Your task to perform on an android device: turn on improve location accuracy Image 0: 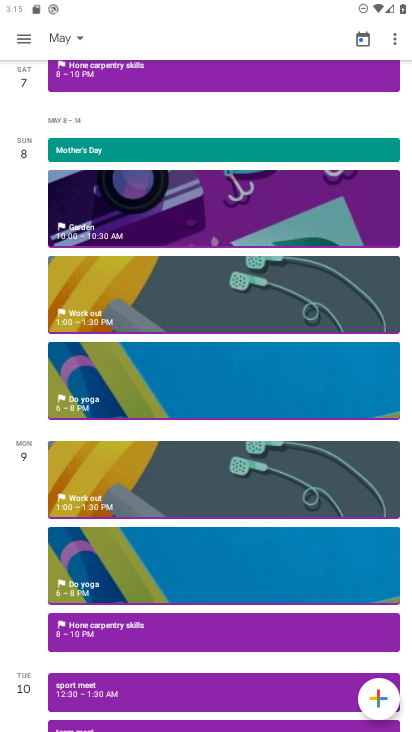
Step 0: press home button
Your task to perform on an android device: turn on improve location accuracy Image 1: 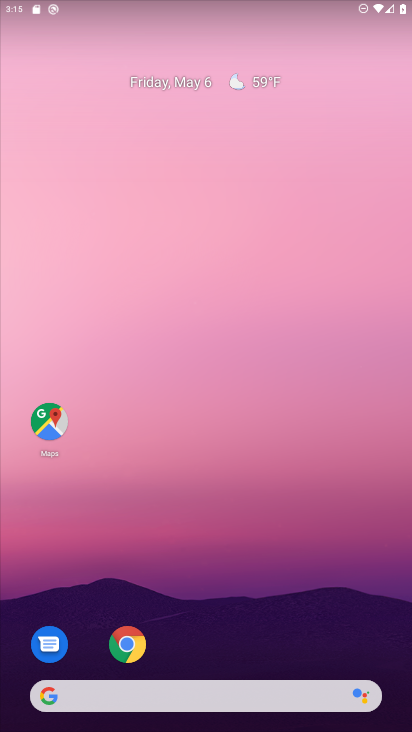
Step 1: drag from (195, 713) to (172, 210)
Your task to perform on an android device: turn on improve location accuracy Image 2: 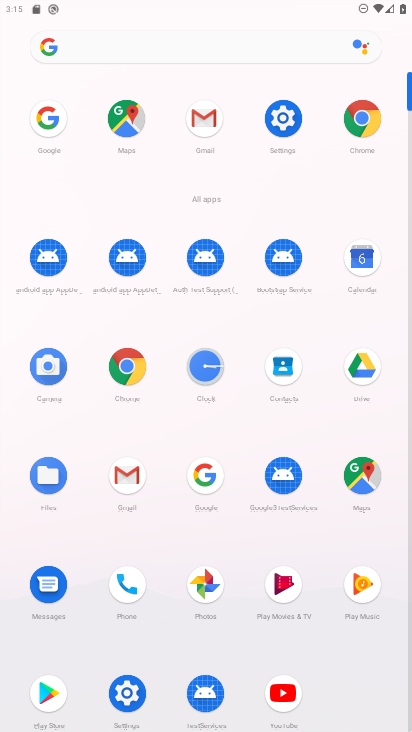
Step 2: click (285, 120)
Your task to perform on an android device: turn on improve location accuracy Image 3: 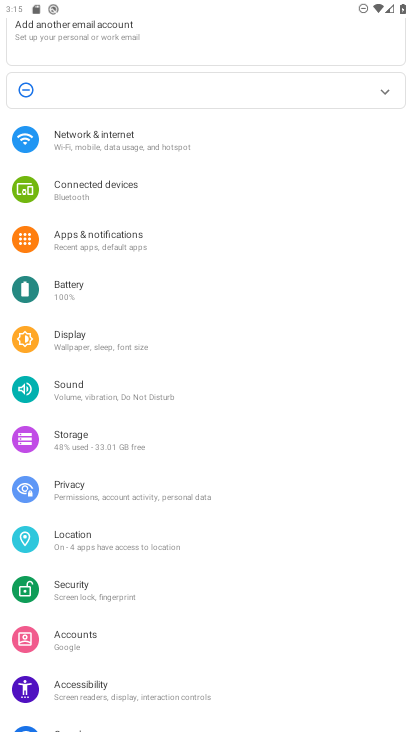
Step 3: click (92, 534)
Your task to perform on an android device: turn on improve location accuracy Image 4: 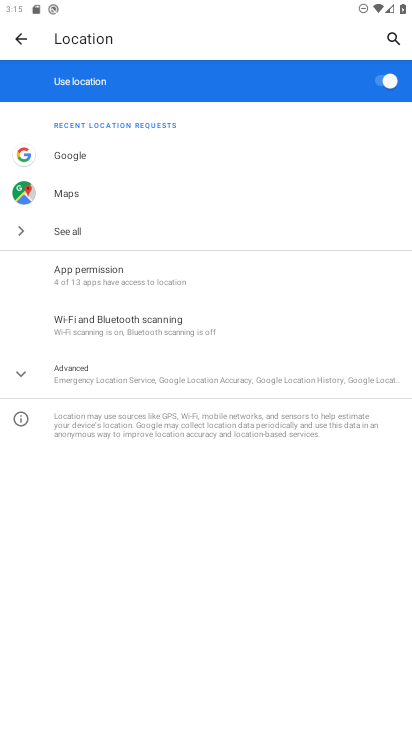
Step 4: click (84, 376)
Your task to perform on an android device: turn on improve location accuracy Image 5: 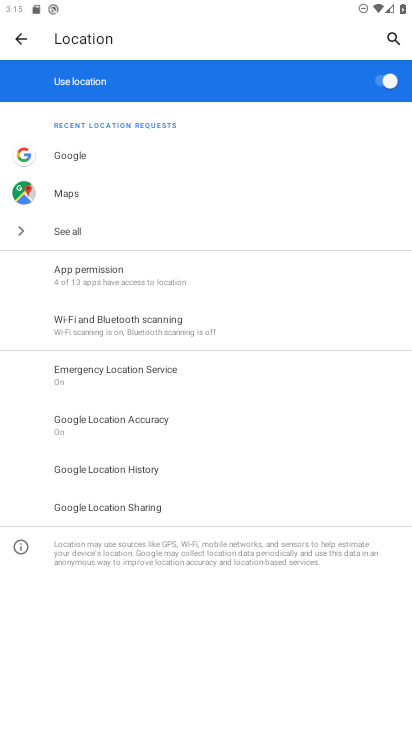
Step 5: click (126, 417)
Your task to perform on an android device: turn on improve location accuracy Image 6: 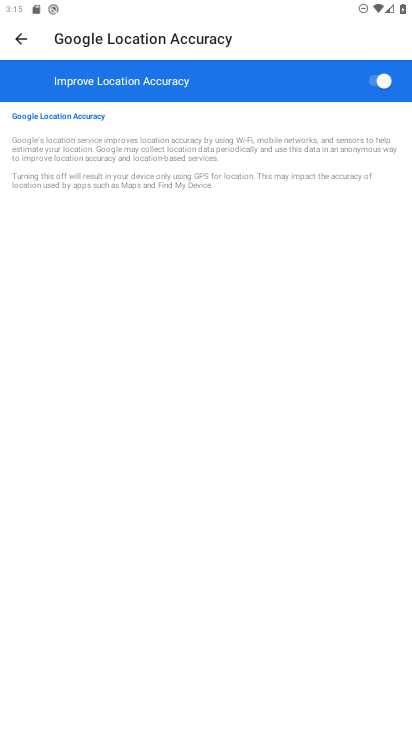
Step 6: task complete